Your task to perform on an android device: choose inbox layout in the gmail app Image 0: 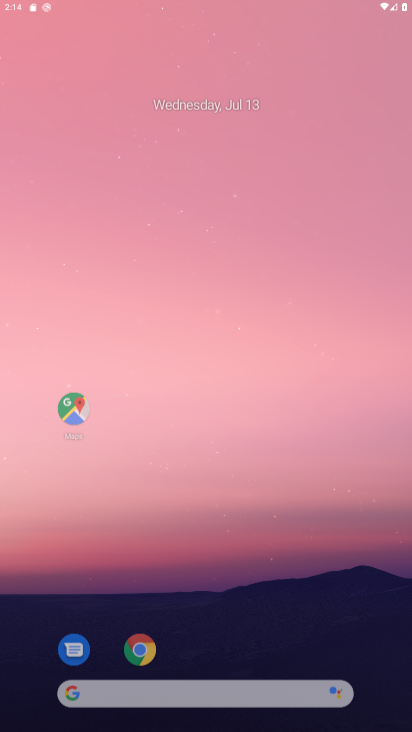
Step 0: press home button
Your task to perform on an android device: choose inbox layout in the gmail app Image 1: 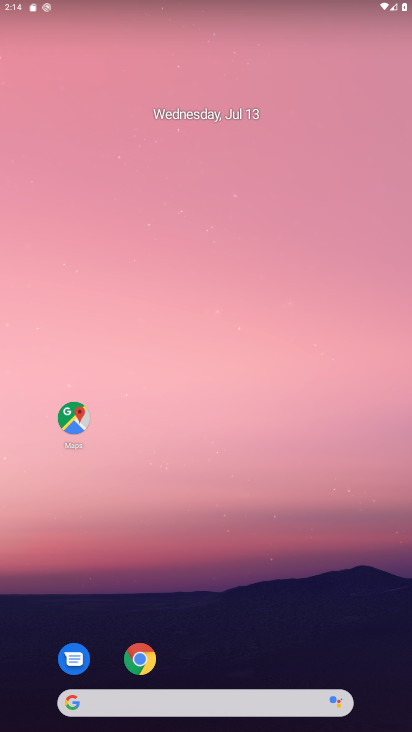
Step 1: drag from (293, 636) to (293, 79)
Your task to perform on an android device: choose inbox layout in the gmail app Image 2: 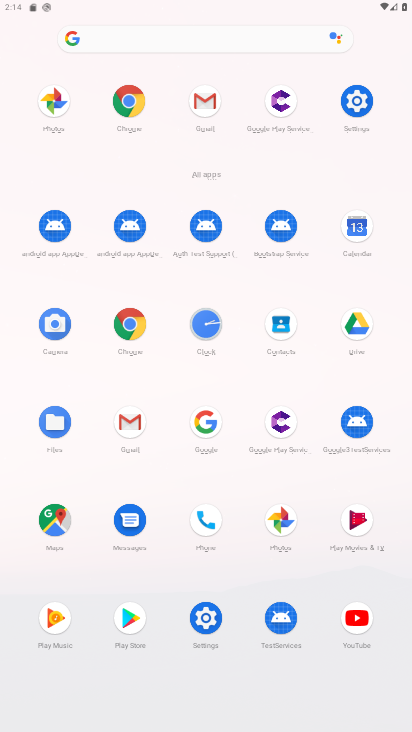
Step 2: click (215, 104)
Your task to perform on an android device: choose inbox layout in the gmail app Image 3: 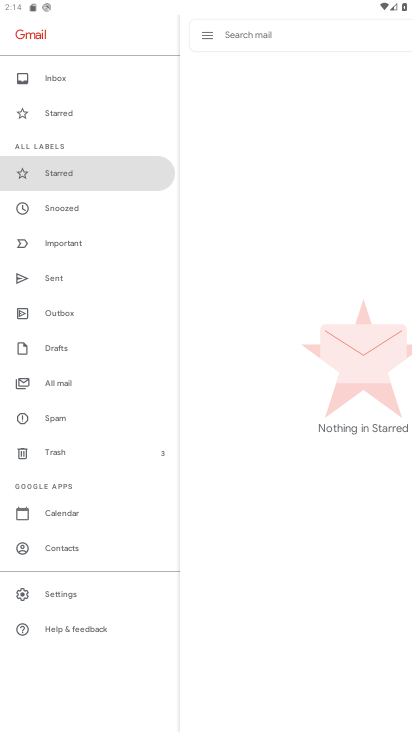
Step 3: click (36, 588)
Your task to perform on an android device: choose inbox layout in the gmail app Image 4: 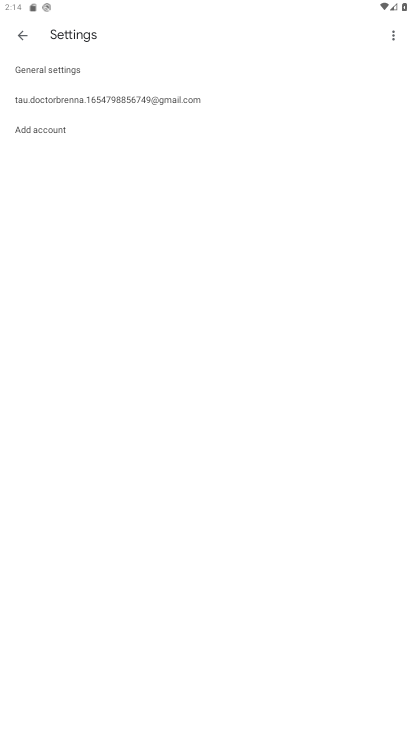
Step 4: click (72, 102)
Your task to perform on an android device: choose inbox layout in the gmail app Image 5: 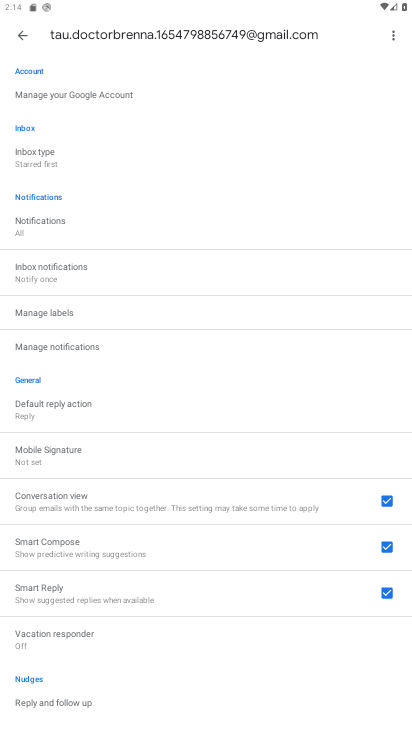
Step 5: click (39, 159)
Your task to perform on an android device: choose inbox layout in the gmail app Image 6: 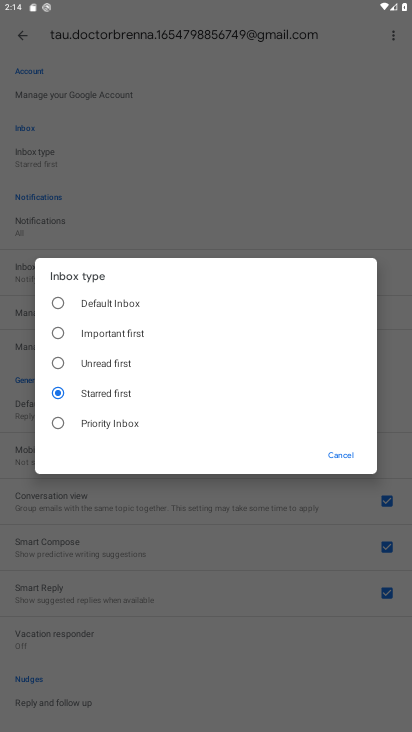
Step 6: click (90, 293)
Your task to perform on an android device: choose inbox layout in the gmail app Image 7: 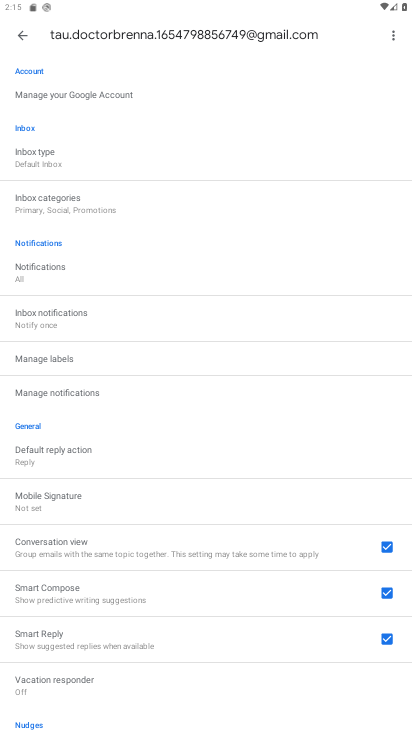
Step 7: task complete